Your task to perform on an android device: Search for Mexican restaurants on Maps Image 0: 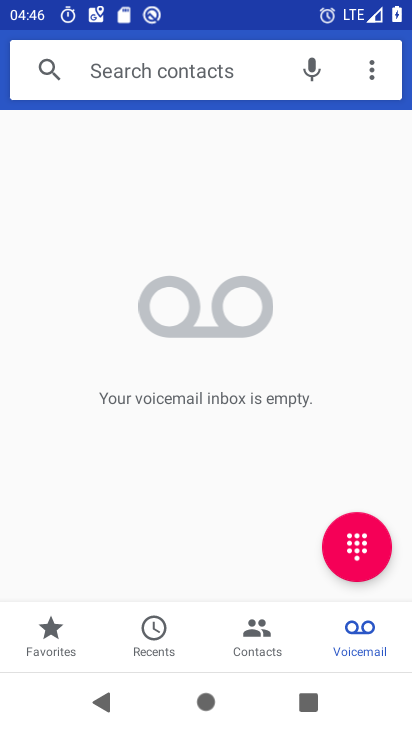
Step 0: press back button
Your task to perform on an android device: Search for Mexican restaurants on Maps Image 1: 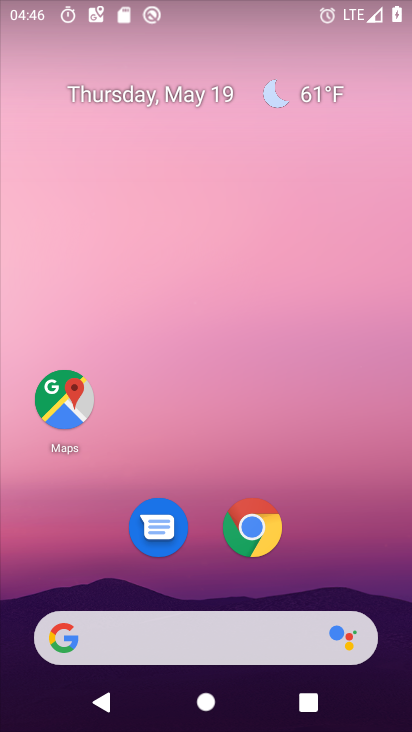
Step 1: click (60, 395)
Your task to perform on an android device: Search for Mexican restaurants on Maps Image 2: 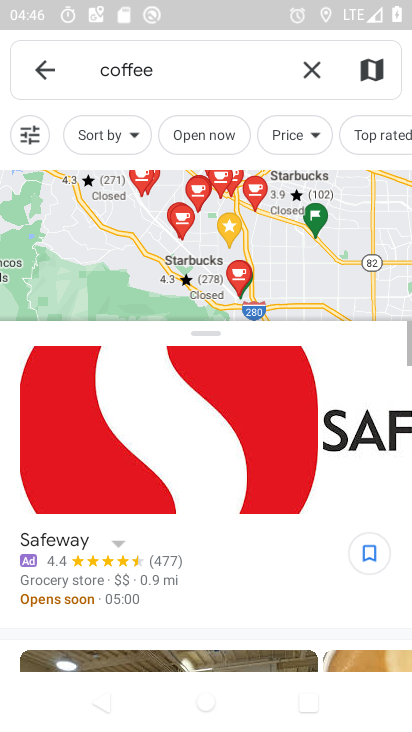
Step 2: click (310, 67)
Your task to perform on an android device: Search for Mexican restaurants on Maps Image 3: 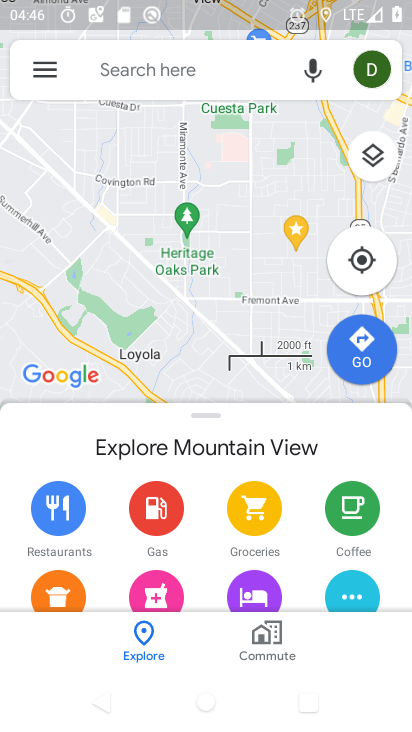
Step 3: click (132, 94)
Your task to perform on an android device: Search for Mexican restaurants on Maps Image 4: 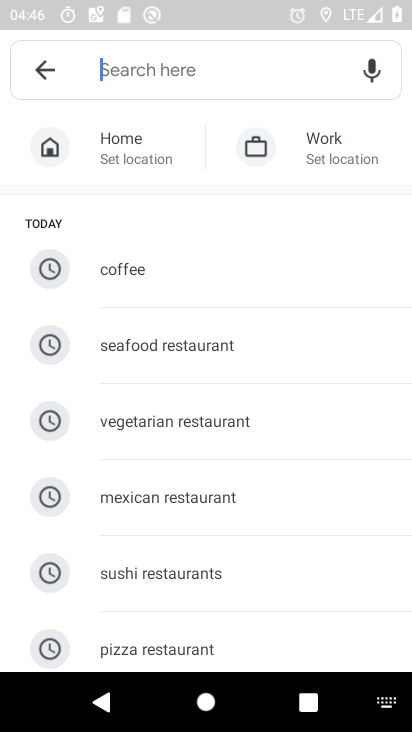
Step 4: click (163, 495)
Your task to perform on an android device: Search for Mexican restaurants on Maps Image 5: 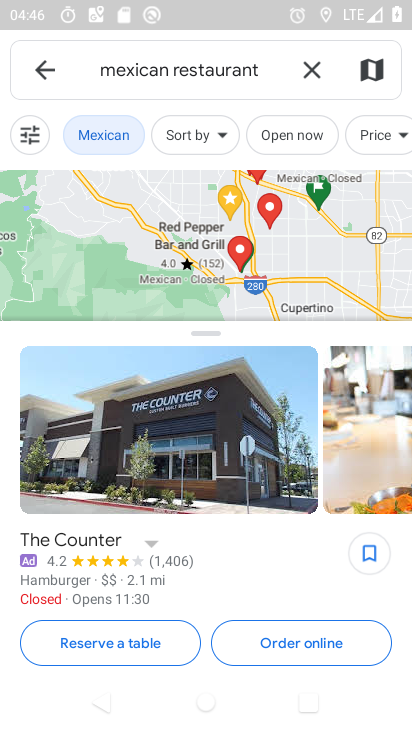
Step 5: task complete